Your task to perform on an android device: turn on sleep mode Image 0: 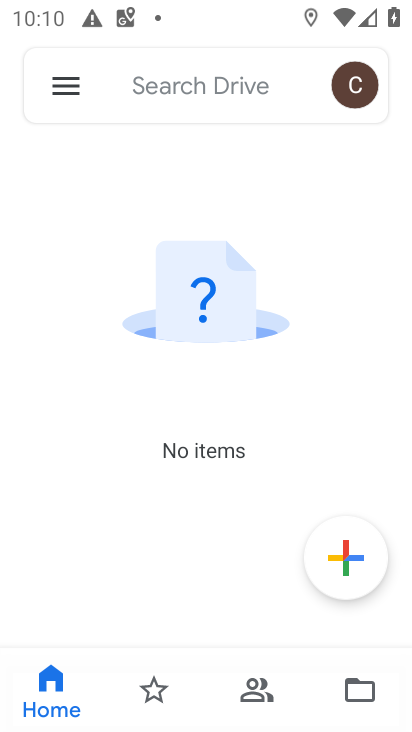
Step 0: press home button
Your task to perform on an android device: turn on sleep mode Image 1: 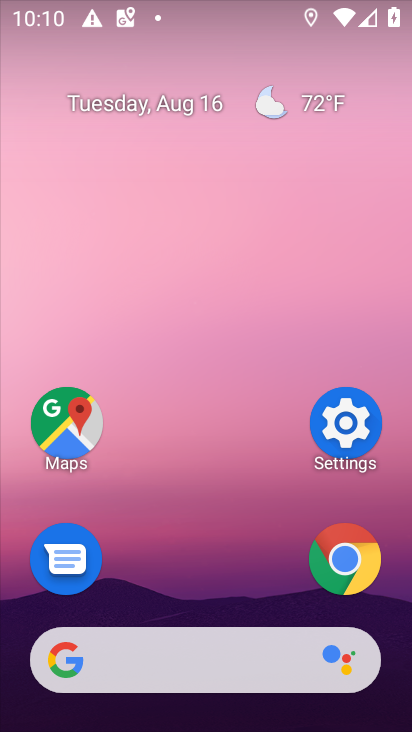
Step 1: click (356, 424)
Your task to perform on an android device: turn on sleep mode Image 2: 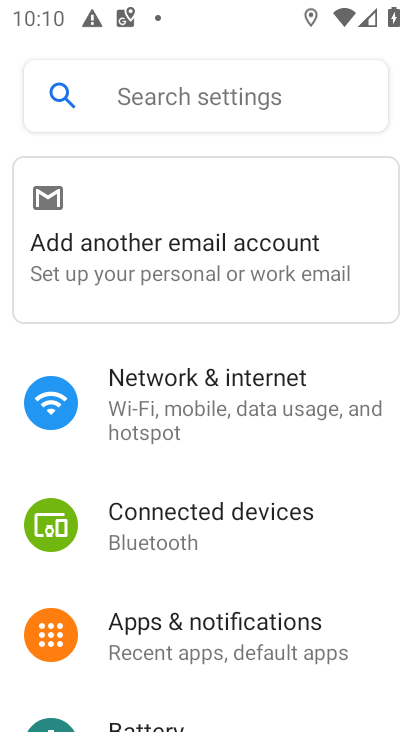
Step 2: drag from (300, 580) to (357, 138)
Your task to perform on an android device: turn on sleep mode Image 3: 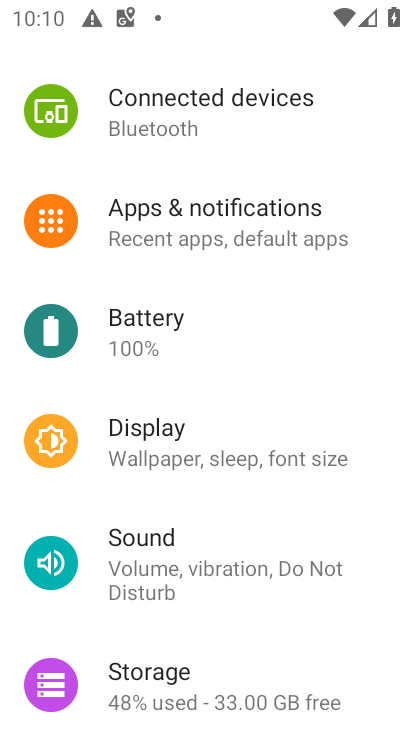
Step 3: click (214, 441)
Your task to perform on an android device: turn on sleep mode Image 4: 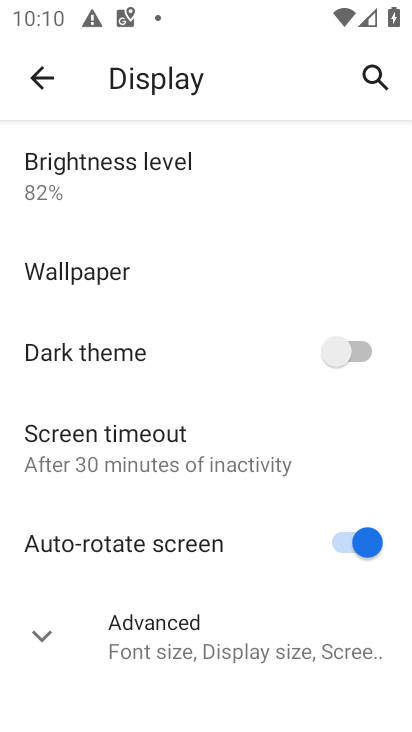
Step 4: drag from (248, 407) to (340, 59)
Your task to perform on an android device: turn on sleep mode Image 5: 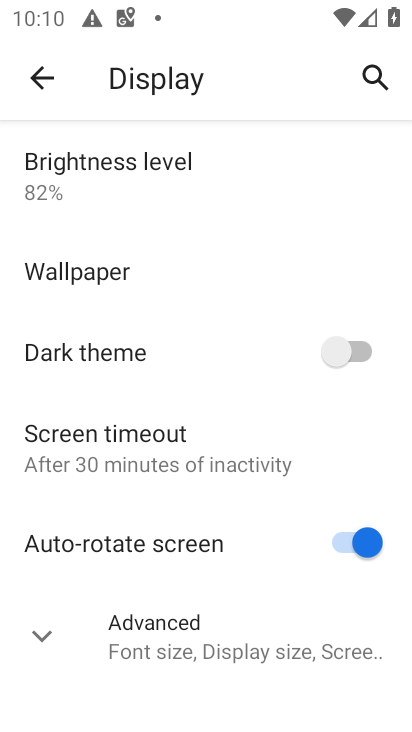
Step 5: click (127, 623)
Your task to perform on an android device: turn on sleep mode Image 6: 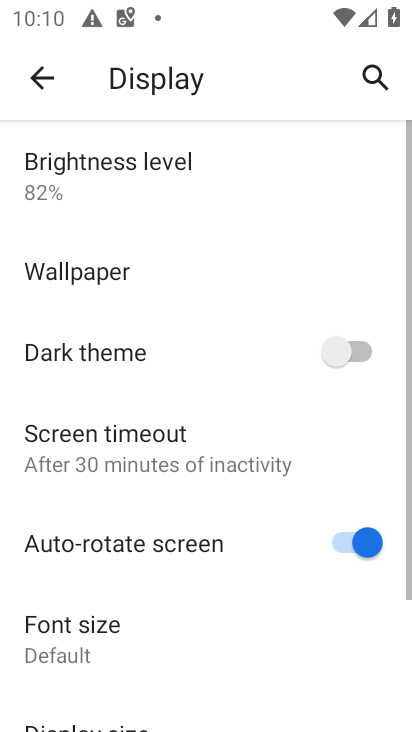
Step 6: task complete